Your task to perform on an android device: open app "Pinterest" (install if not already installed) and go to login screen Image 0: 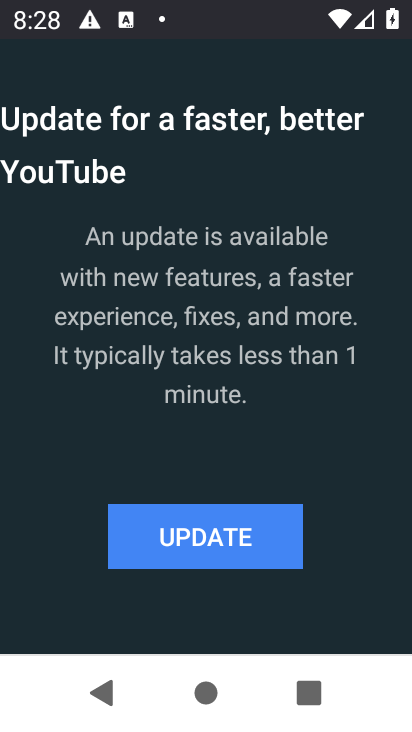
Step 0: press back button
Your task to perform on an android device: open app "Pinterest" (install if not already installed) and go to login screen Image 1: 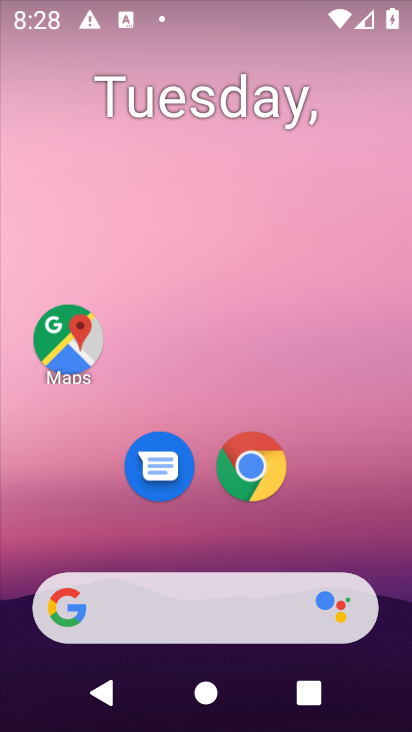
Step 1: drag from (193, 554) to (285, 13)
Your task to perform on an android device: open app "Pinterest" (install if not already installed) and go to login screen Image 2: 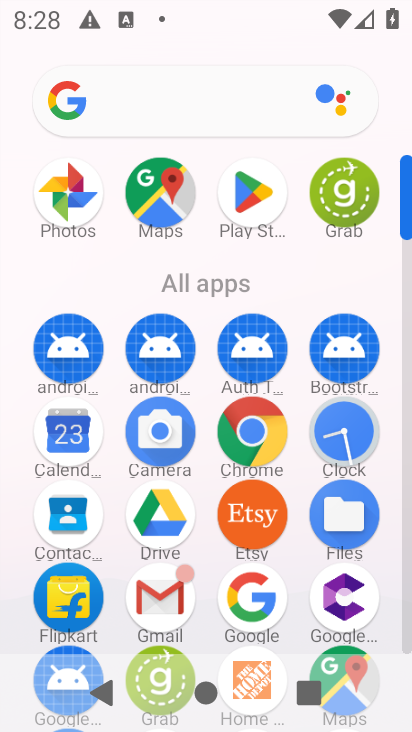
Step 2: click (245, 178)
Your task to perform on an android device: open app "Pinterest" (install if not already installed) and go to login screen Image 3: 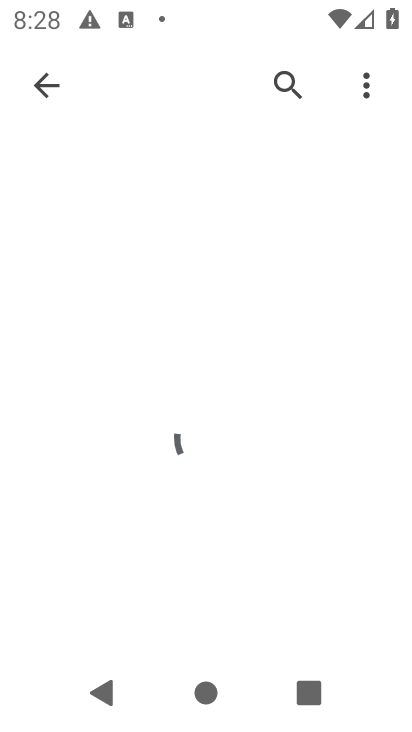
Step 3: click (276, 95)
Your task to perform on an android device: open app "Pinterest" (install if not already installed) and go to login screen Image 4: 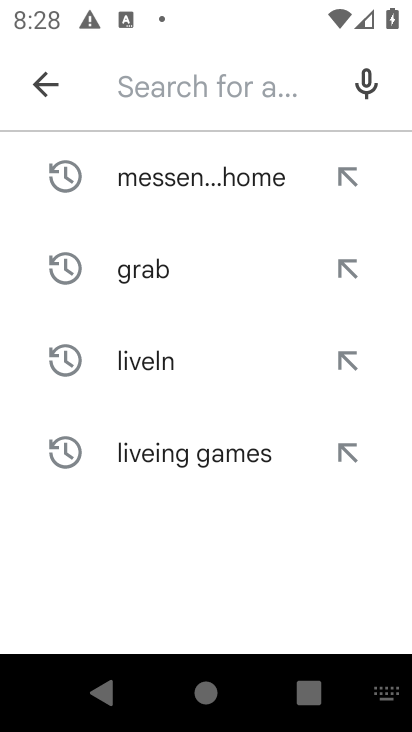
Step 4: click (214, 88)
Your task to perform on an android device: open app "Pinterest" (install if not already installed) and go to login screen Image 5: 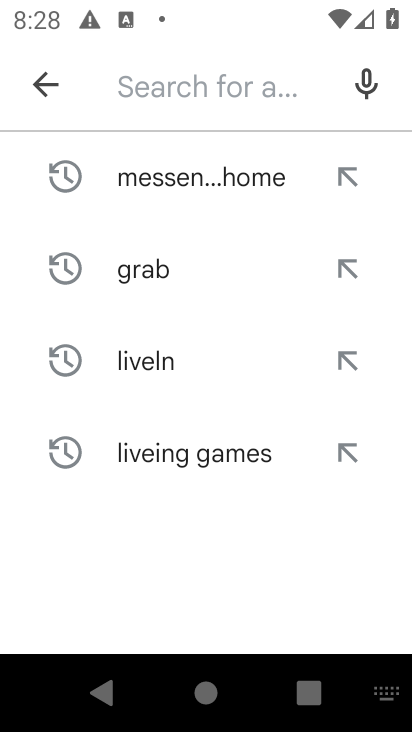
Step 5: type "Pinterest"
Your task to perform on an android device: open app "Pinterest" (install if not already installed) and go to login screen Image 6: 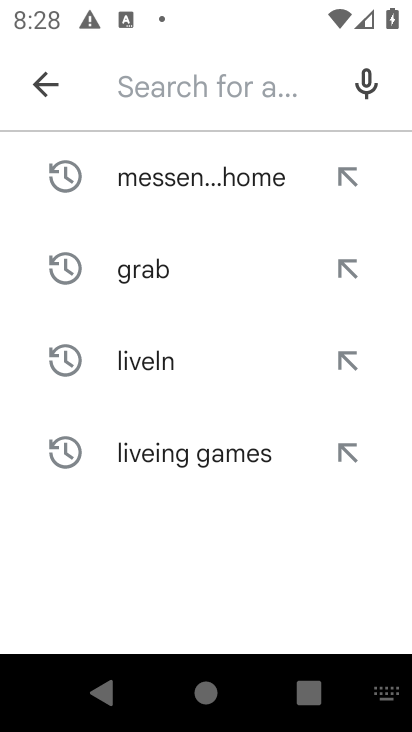
Step 6: click (89, 555)
Your task to perform on an android device: open app "Pinterest" (install if not already installed) and go to login screen Image 7: 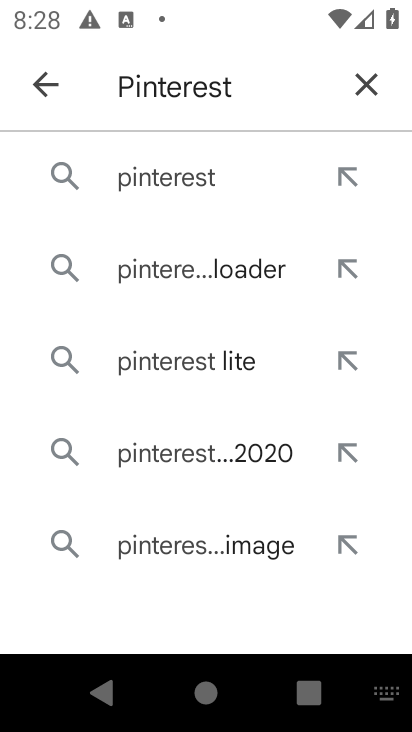
Step 7: click (181, 168)
Your task to perform on an android device: open app "Pinterest" (install if not already installed) and go to login screen Image 8: 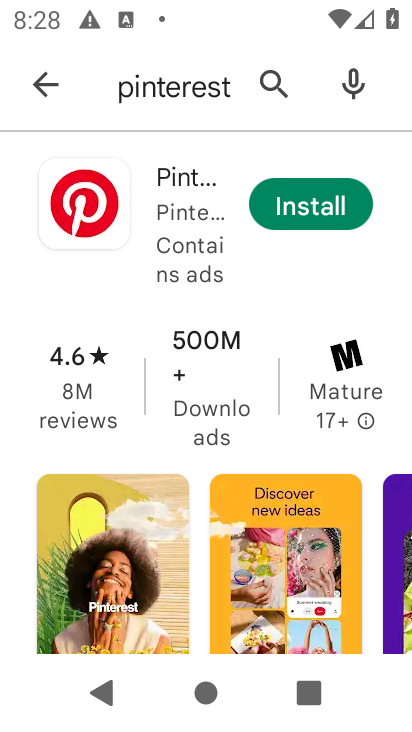
Step 8: click (329, 213)
Your task to perform on an android device: open app "Pinterest" (install if not already installed) and go to login screen Image 9: 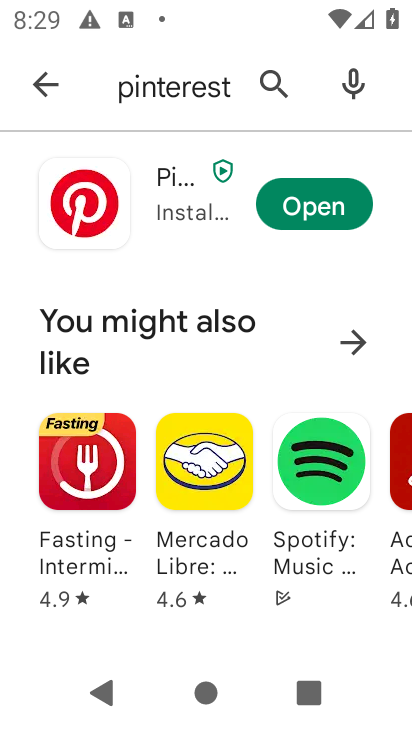
Step 9: click (325, 206)
Your task to perform on an android device: open app "Pinterest" (install if not already installed) and go to login screen Image 10: 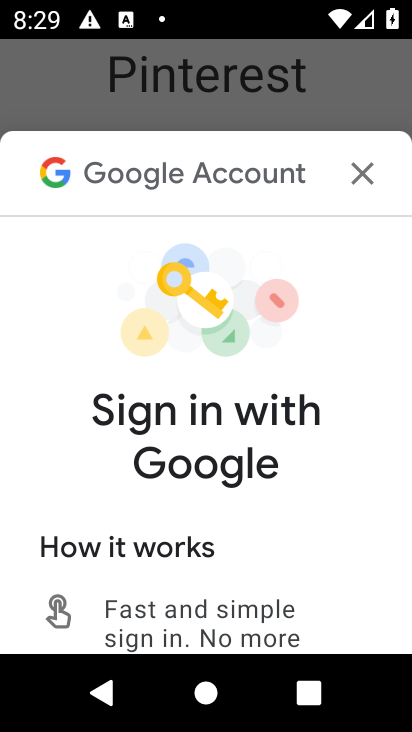
Step 10: click (362, 169)
Your task to perform on an android device: open app "Pinterest" (install if not already installed) and go to login screen Image 11: 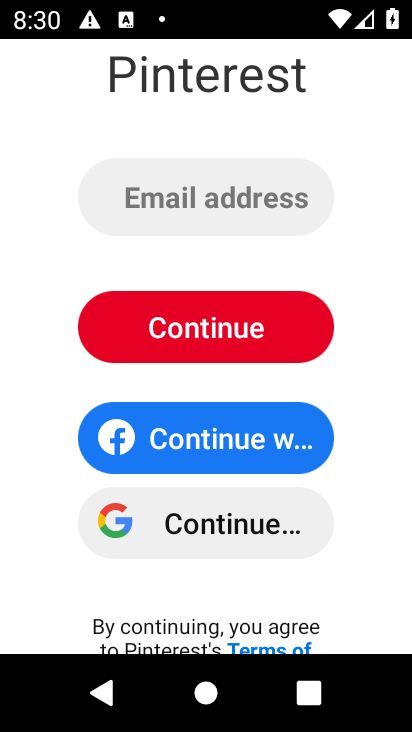
Step 11: task complete